Your task to perform on an android device: turn pop-ups on in chrome Image 0: 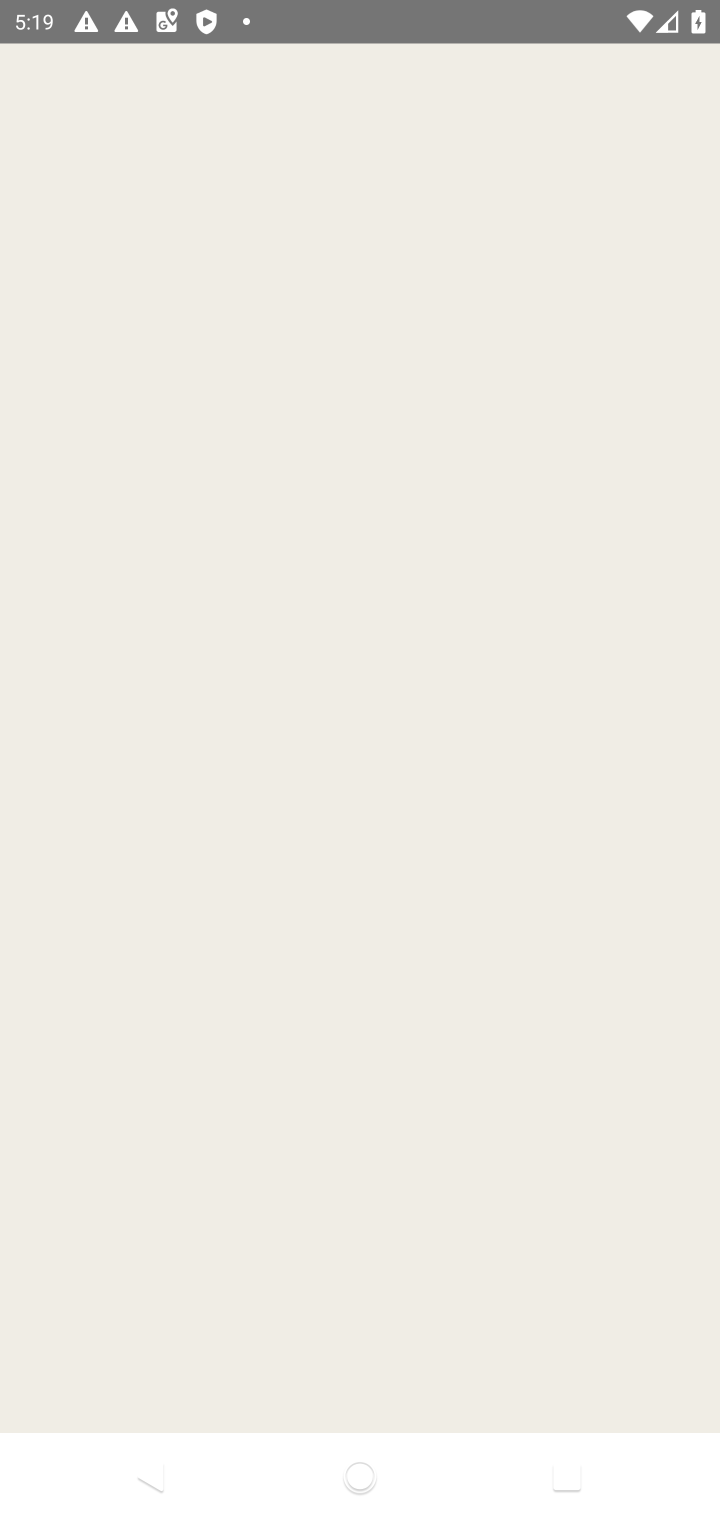
Step 0: click (345, 133)
Your task to perform on an android device: turn pop-ups on in chrome Image 1: 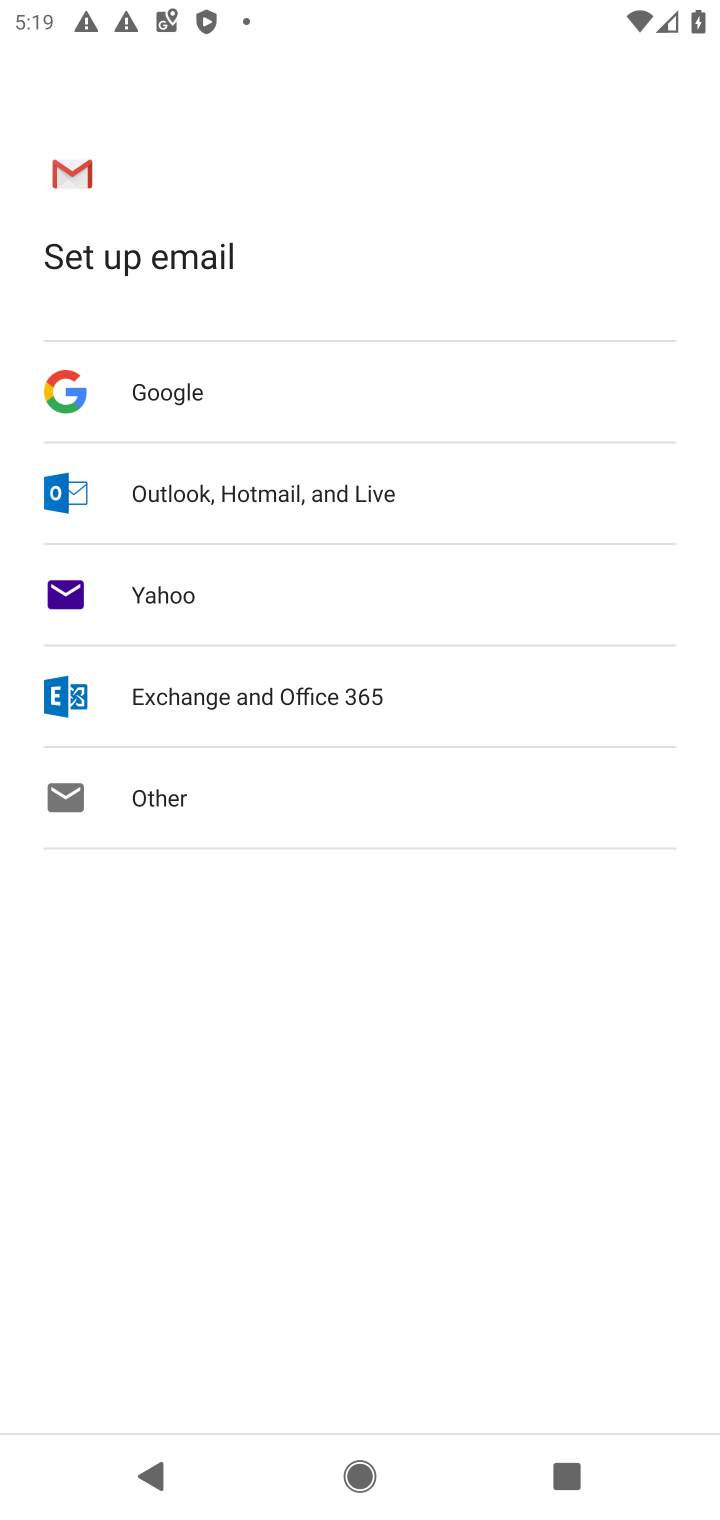
Step 1: press home button
Your task to perform on an android device: turn pop-ups on in chrome Image 2: 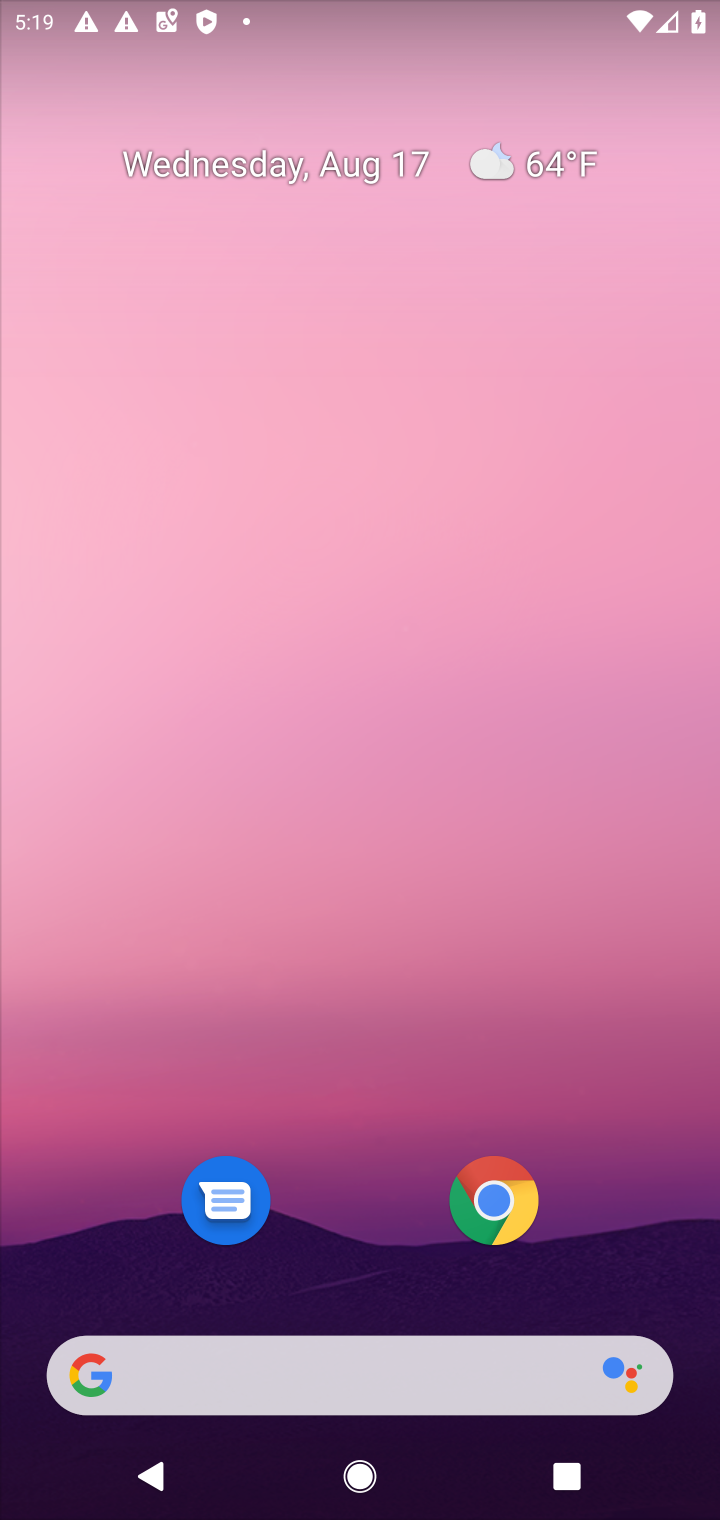
Step 2: drag from (343, 941) to (330, 168)
Your task to perform on an android device: turn pop-ups on in chrome Image 3: 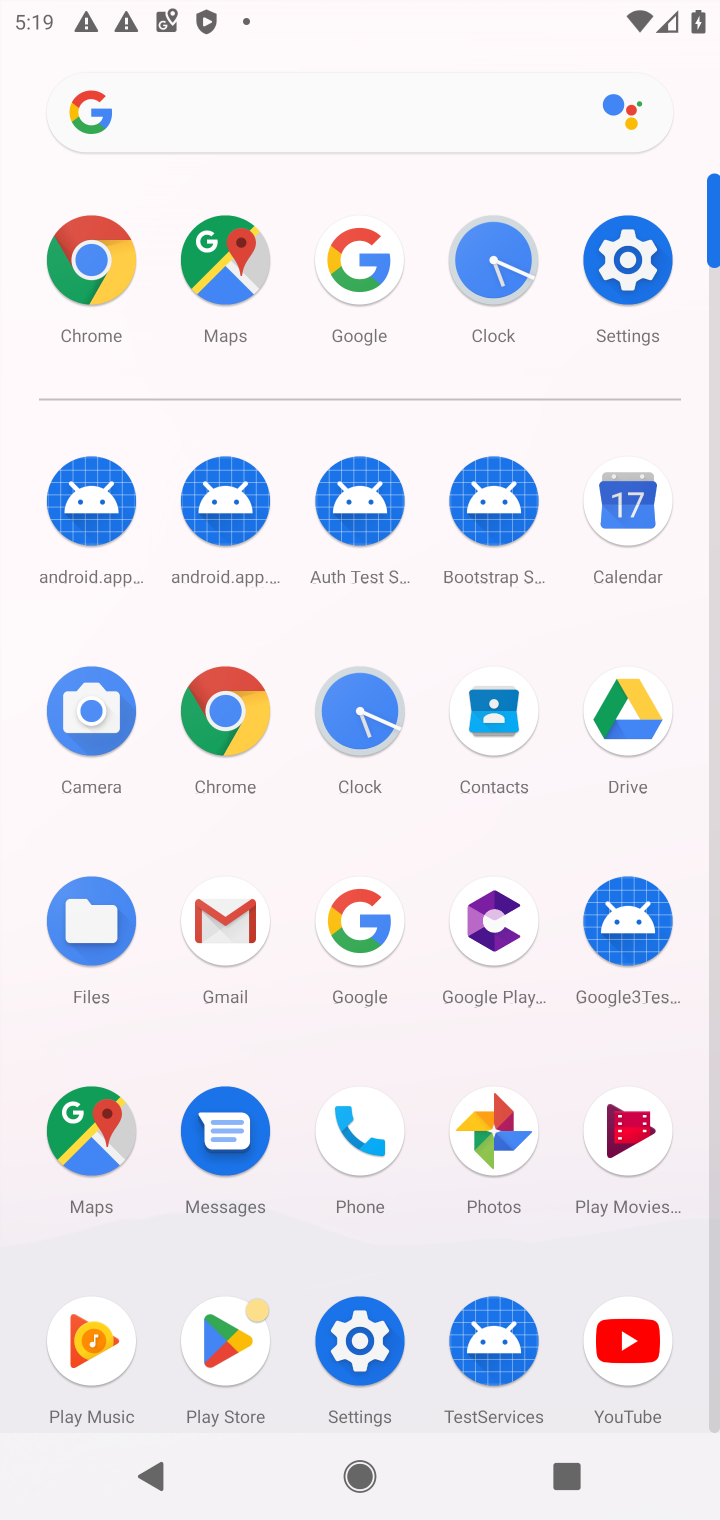
Step 3: click (225, 707)
Your task to perform on an android device: turn pop-ups on in chrome Image 4: 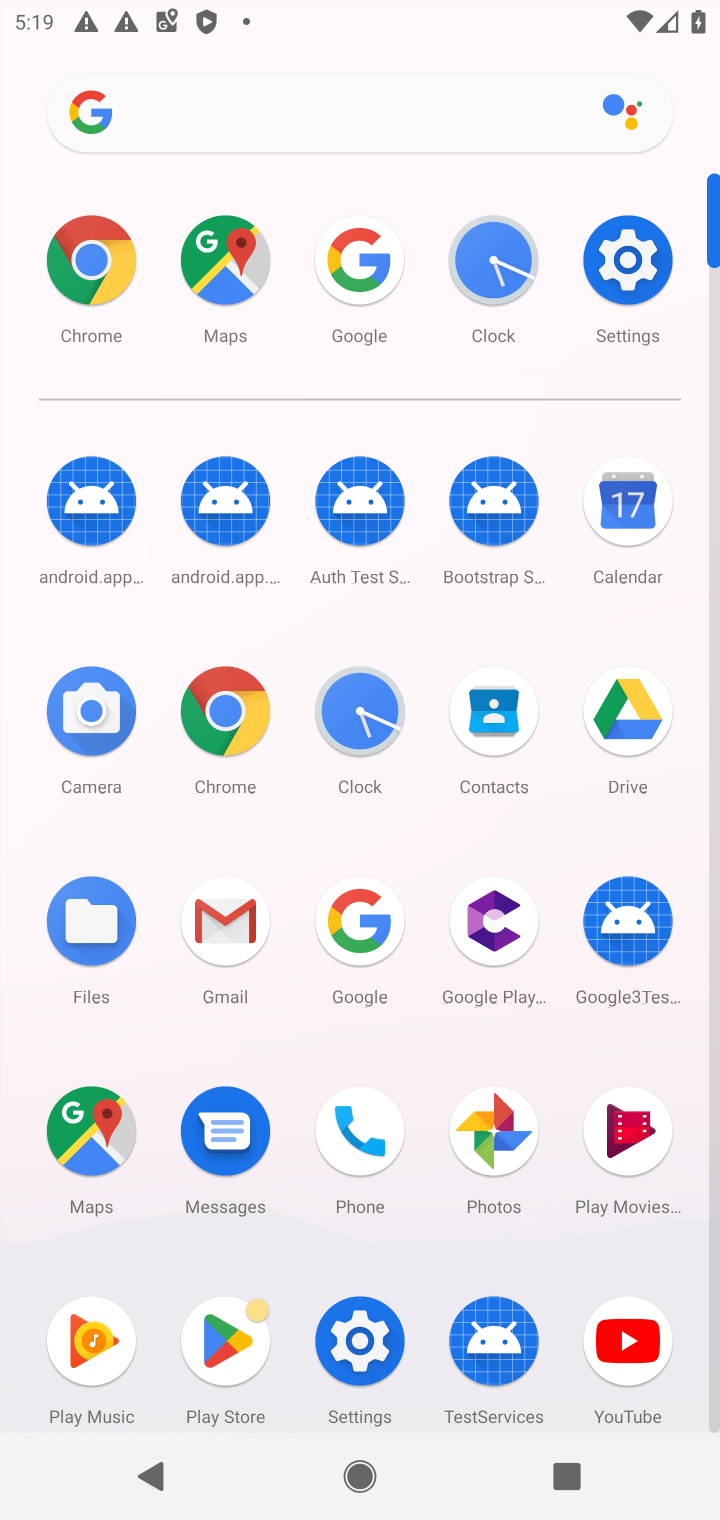
Step 4: click (225, 707)
Your task to perform on an android device: turn pop-ups on in chrome Image 5: 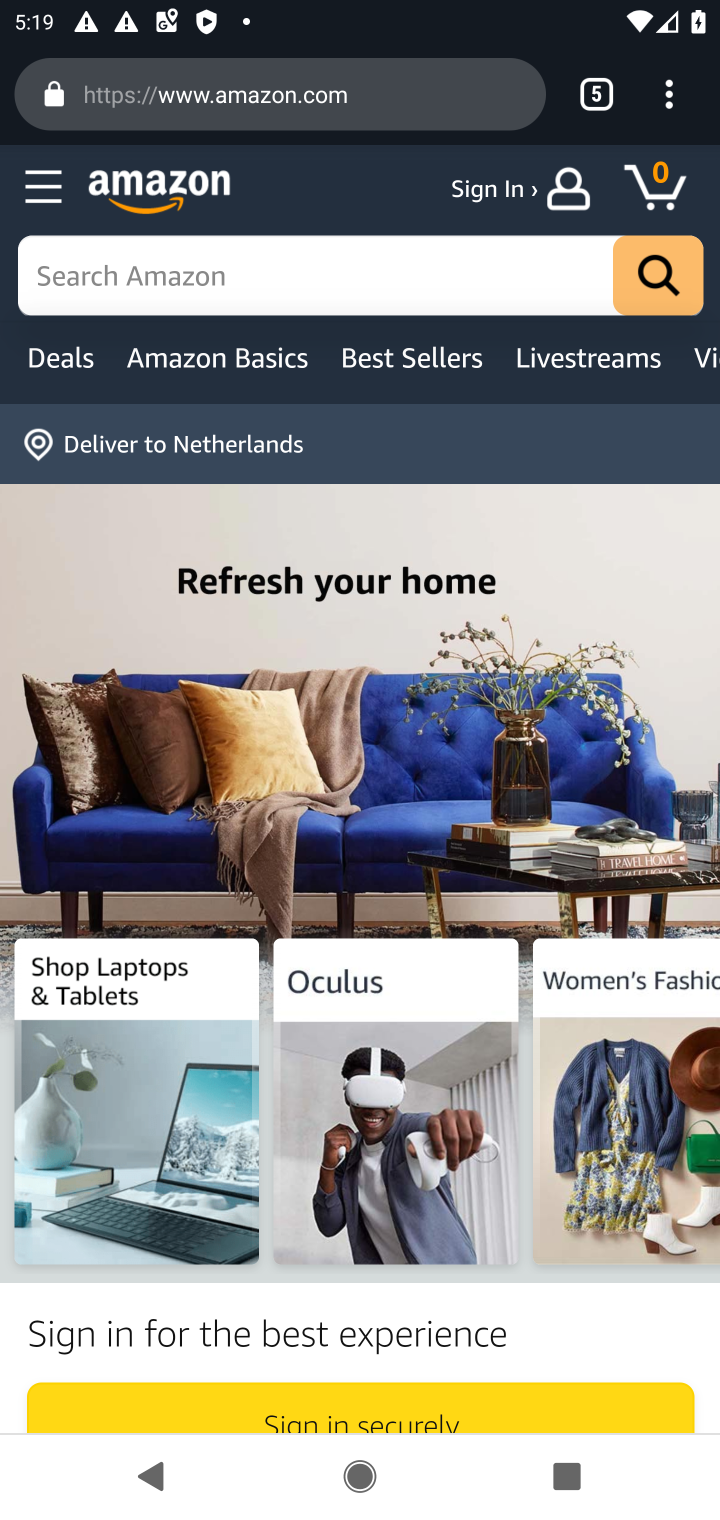
Step 5: drag from (670, 106) to (345, 1132)
Your task to perform on an android device: turn pop-ups on in chrome Image 6: 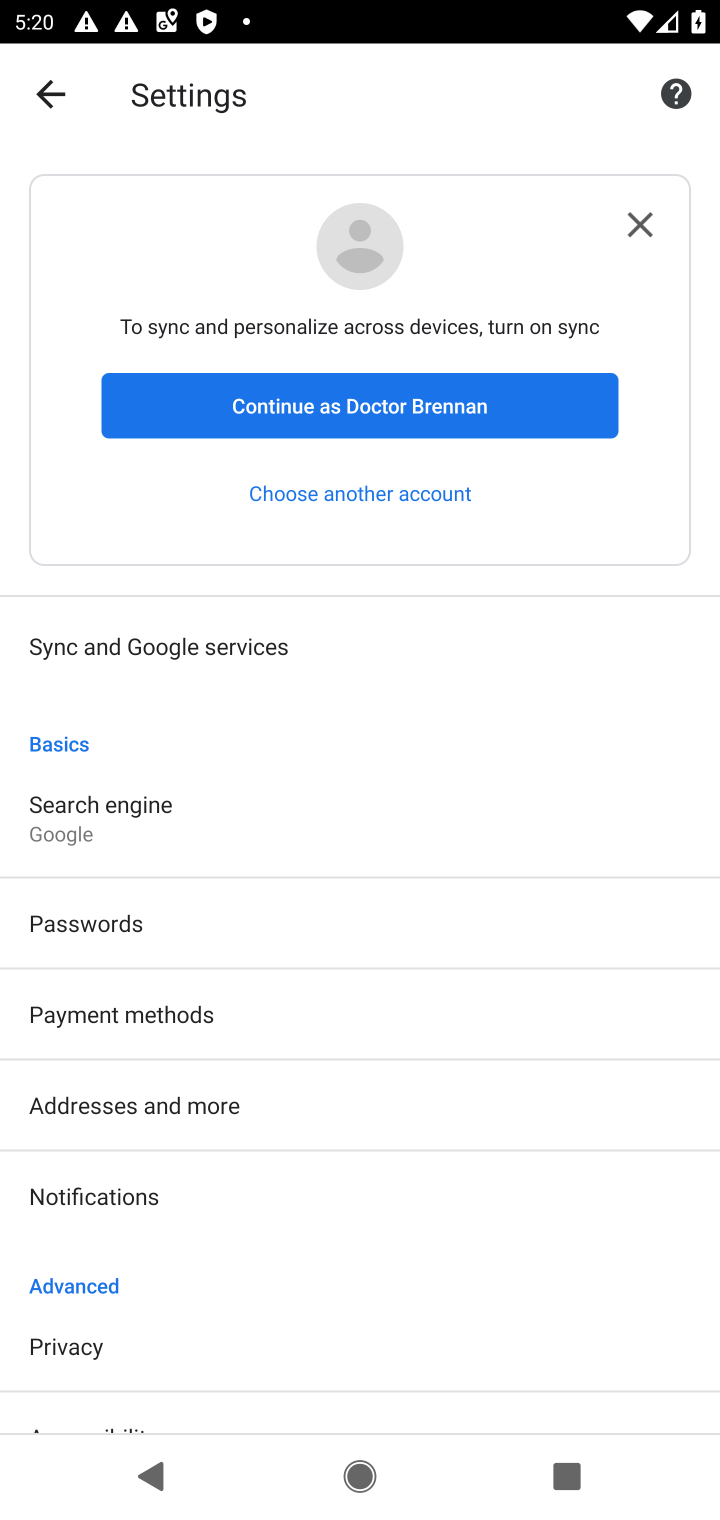
Step 6: drag from (142, 1349) to (138, 350)
Your task to perform on an android device: turn pop-ups on in chrome Image 7: 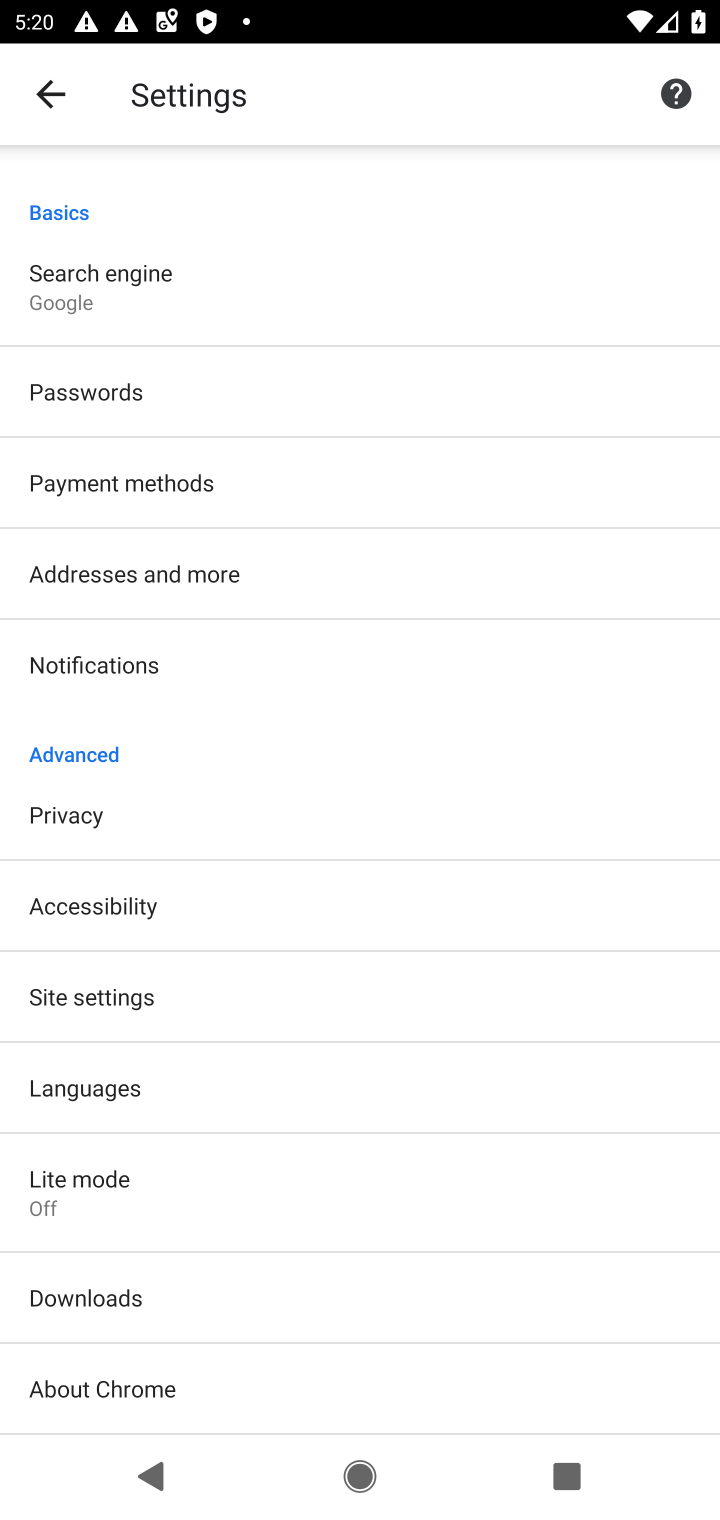
Step 7: click (78, 1000)
Your task to perform on an android device: turn pop-ups on in chrome Image 8: 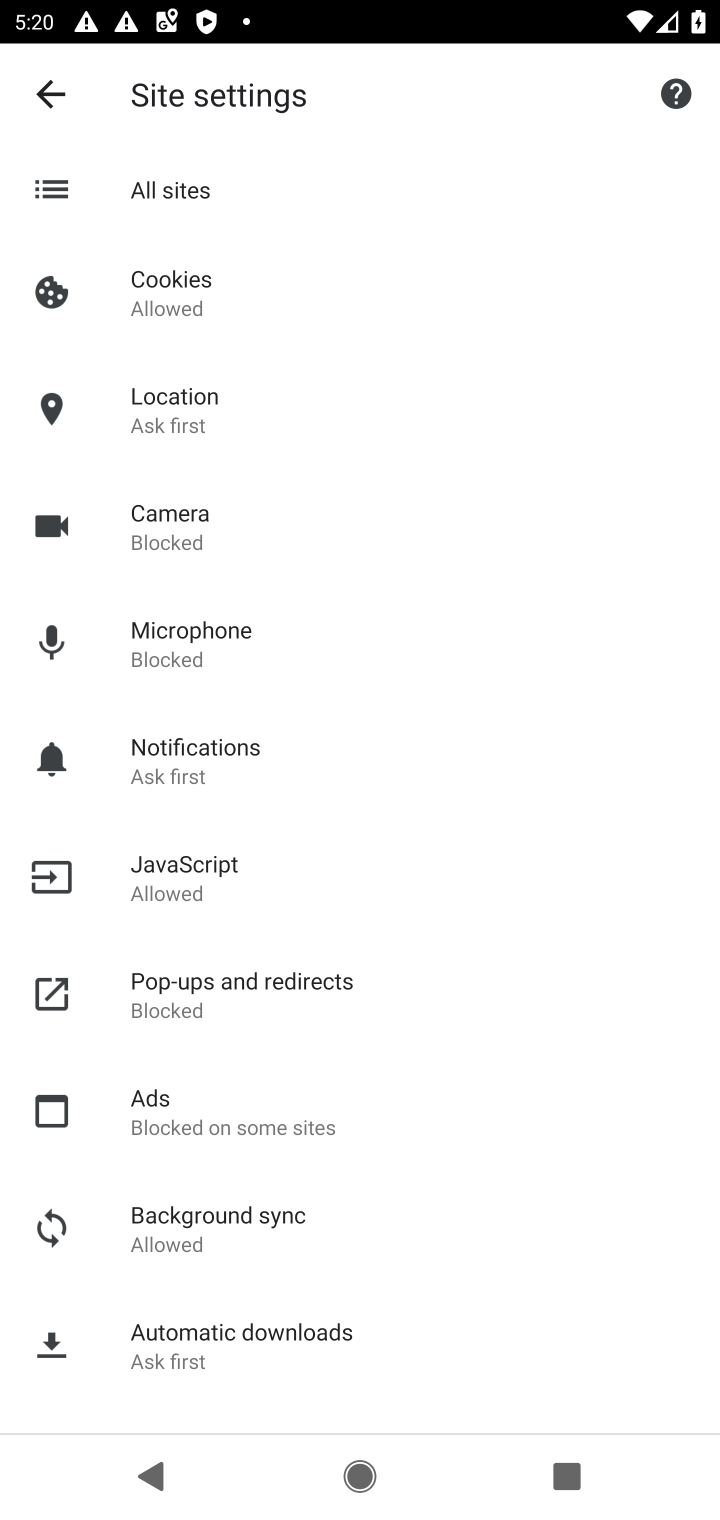
Step 8: click (246, 984)
Your task to perform on an android device: turn pop-ups on in chrome Image 9: 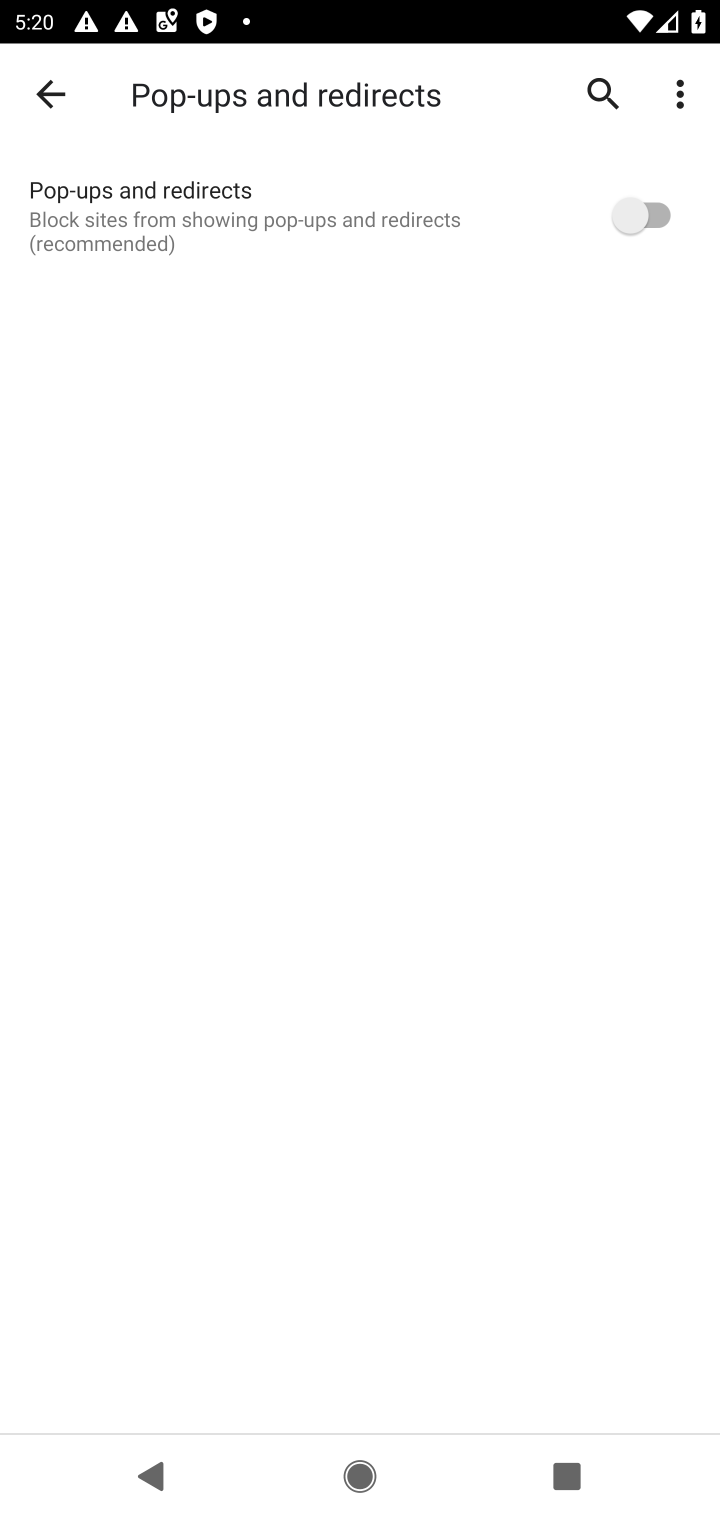
Step 9: click (650, 221)
Your task to perform on an android device: turn pop-ups on in chrome Image 10: 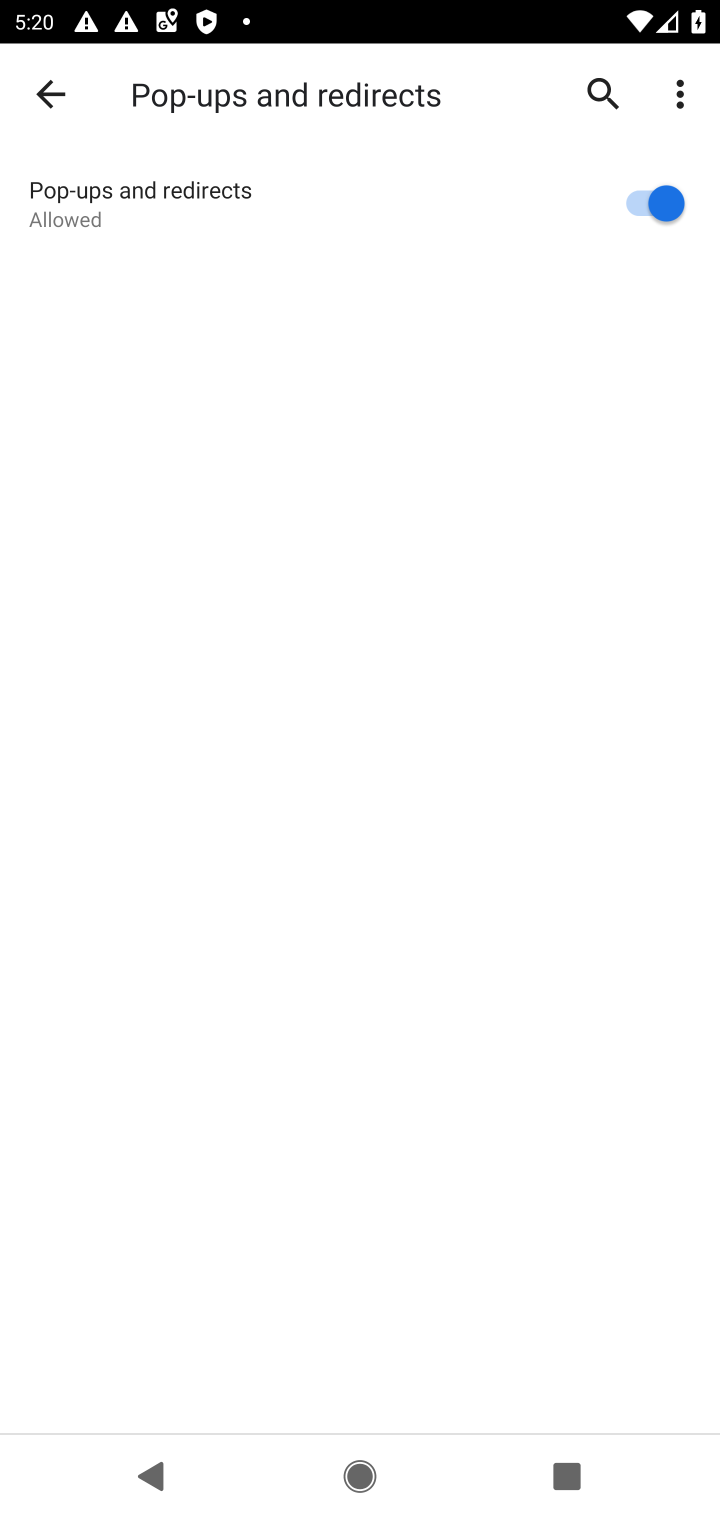
Step 10: task complete